Your task to perform on an android device: Search for macbook pro 15 inch on walmart.com, select the first entry, and add it to the cart. Image 0: 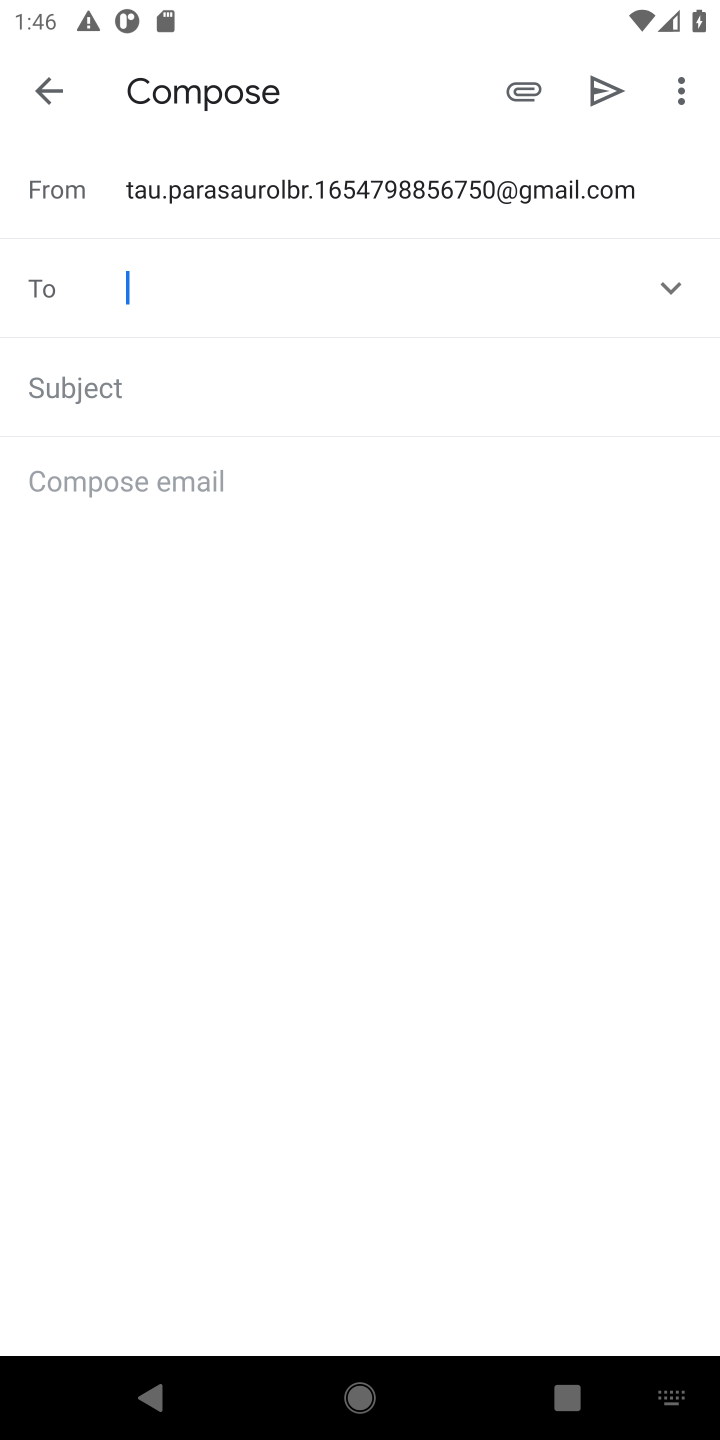
Step 0: press home button
Your task to perform on an android device: Search for macbook pro 15 inch on walmart.com, select the first entry, and add it to the cart. Image 1: 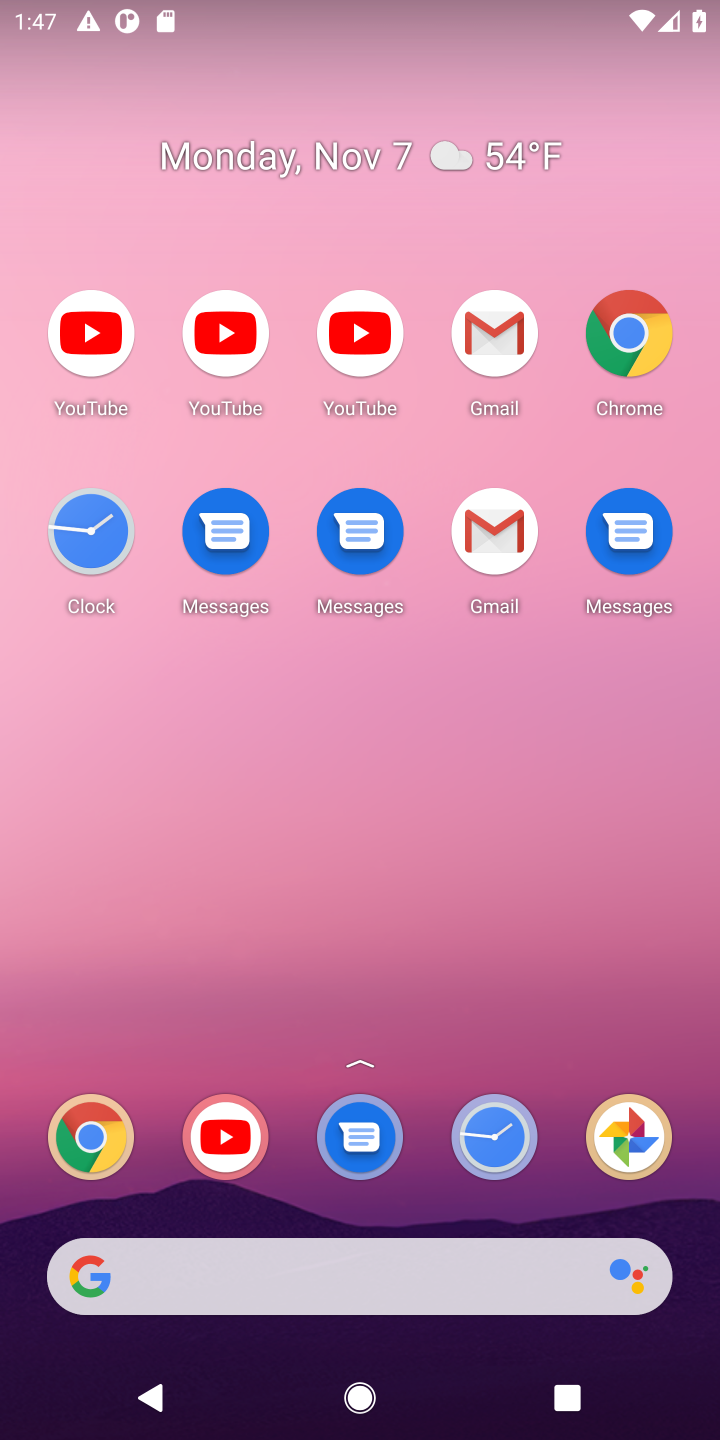
Step 1: drag from (422, 1203) to (378, 129)
Your task to perform on an android device: Search for macbook pro 15 inch on walmart.com, select the first entry, and add it to the cart. Image 2: 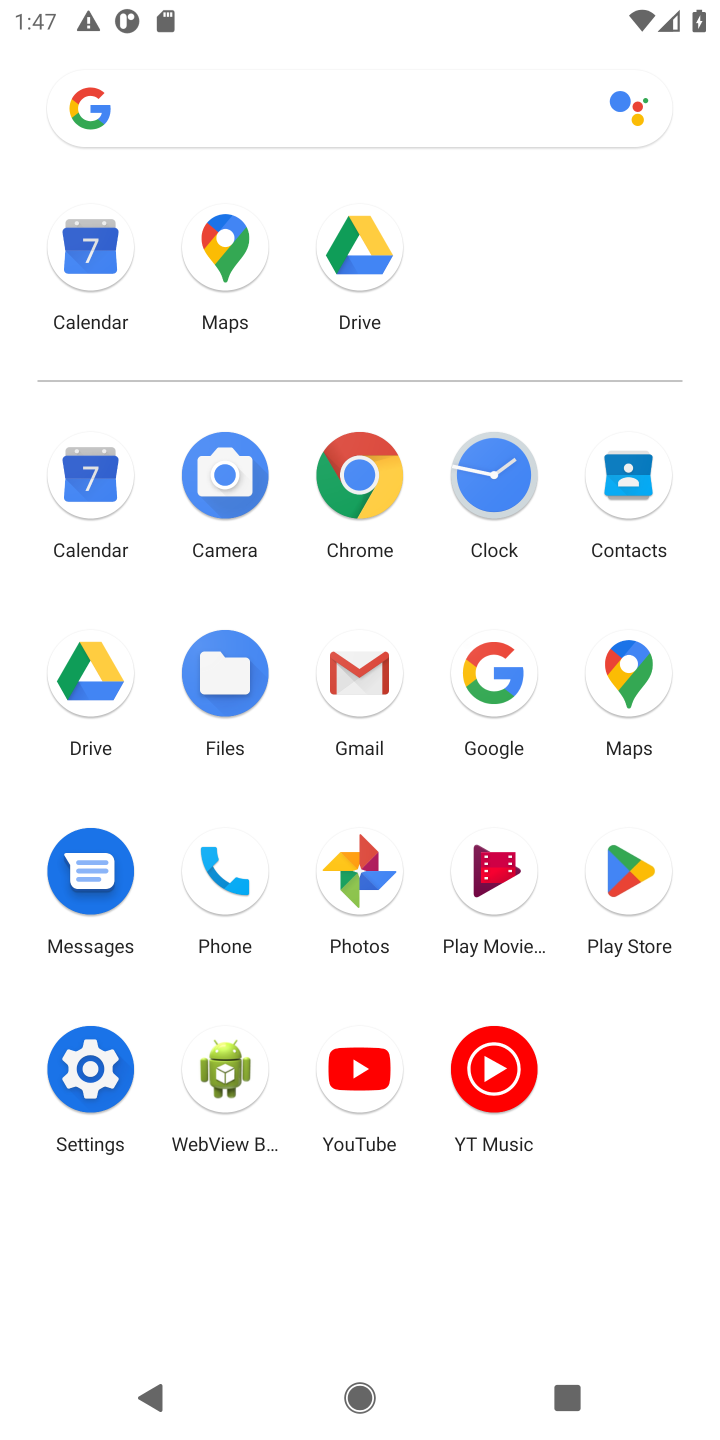
Step 2: click (358, 479)
Your task to perform on an android device: Search for macbook pro 15 inch on walmart.com, select the first entry, and add it to the cart. Image 3: 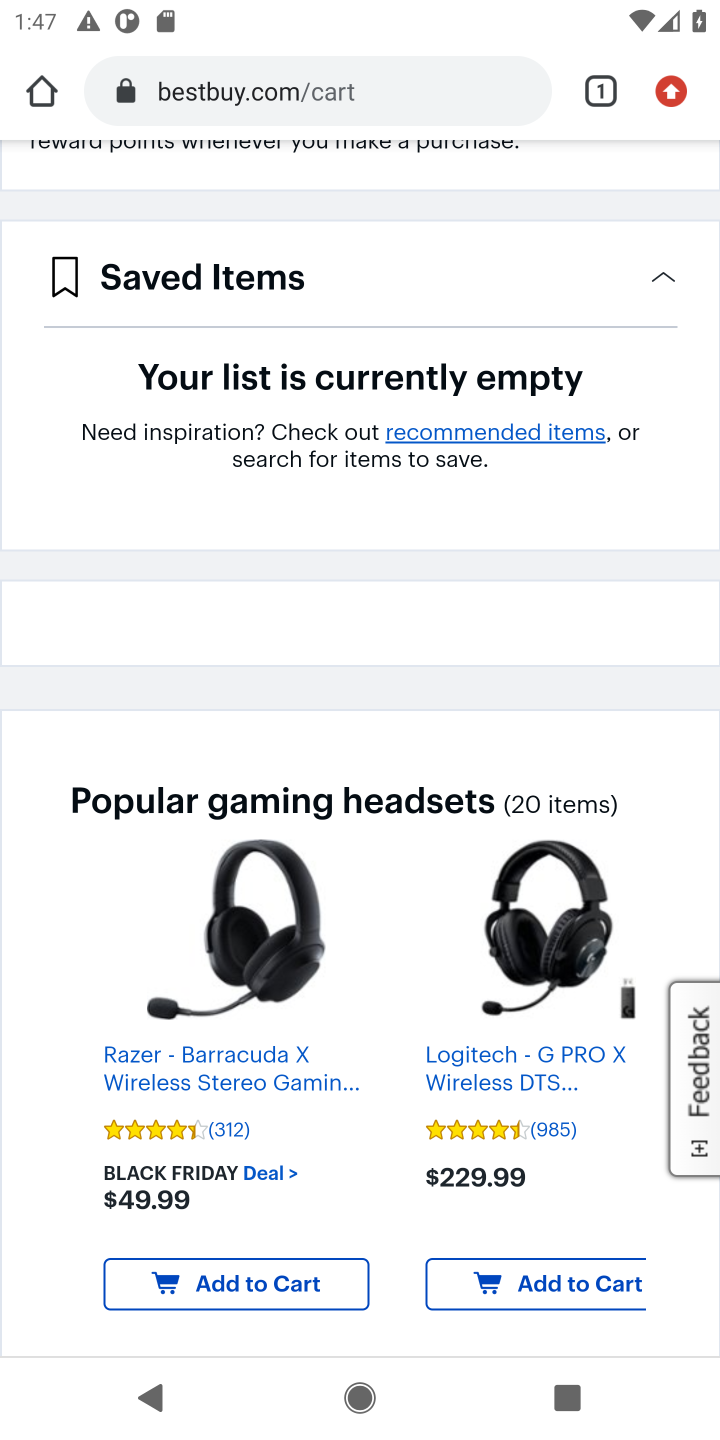
Step 3: click (359, 88)
Your task to perform on an android device: Search for macbook pro 15 inch on walmart.com, select the first entry, and add it to the cart. Image 4: 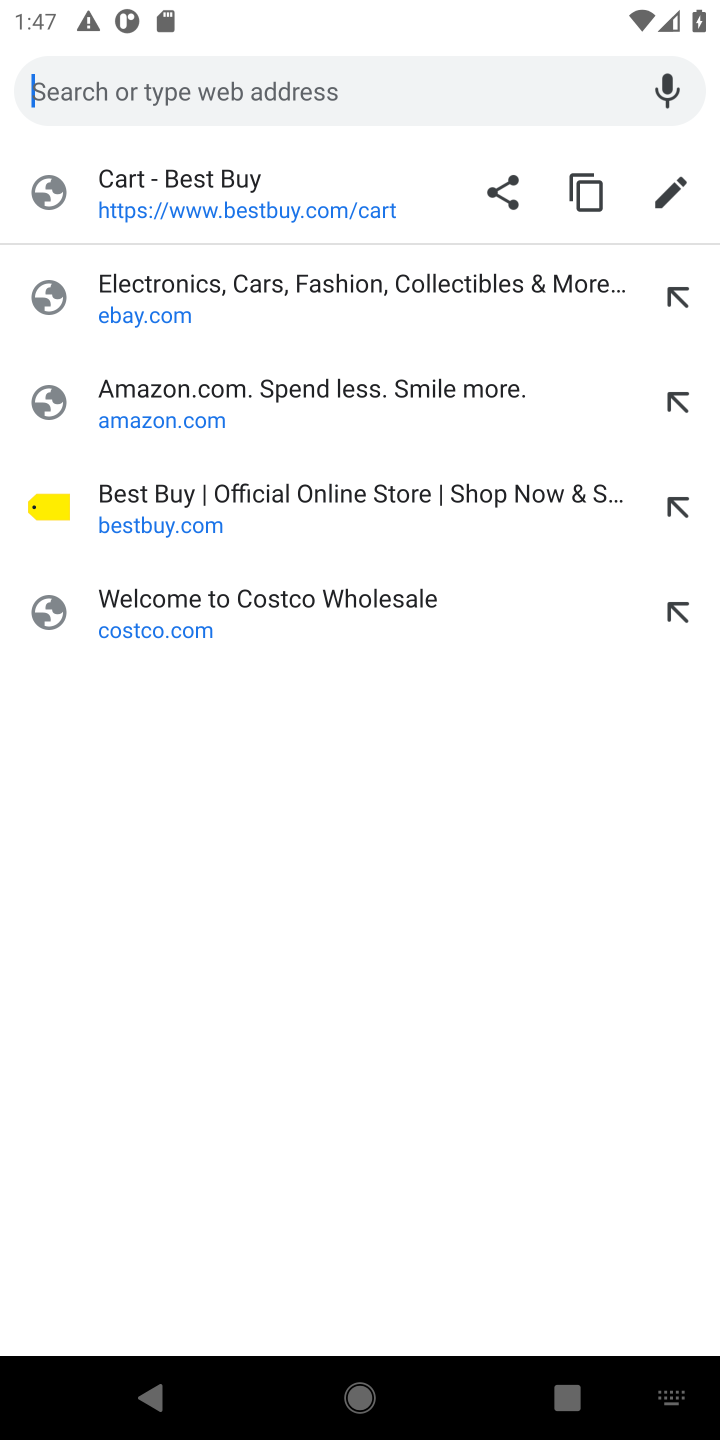
Step 4: type "walmart.com"
Your task to perform on an android device: Search for macbook pro 15 inch on walmart.com, select the first entry, and add it to the cart. Image 5: 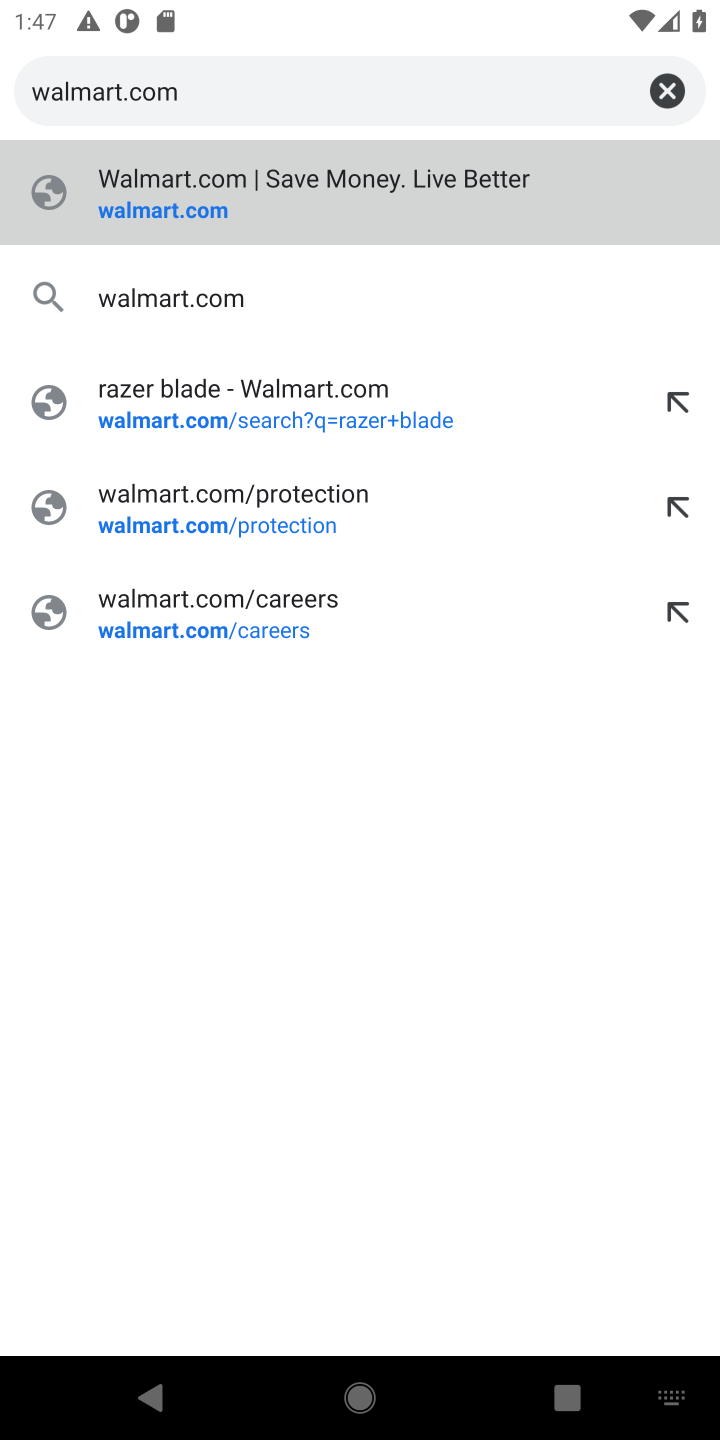
Step 5: press enter
Your task to perform on an android device: Search for macbook pro 15 inch on walmart.com, select the first entry, and add it to the cart. Image 6: 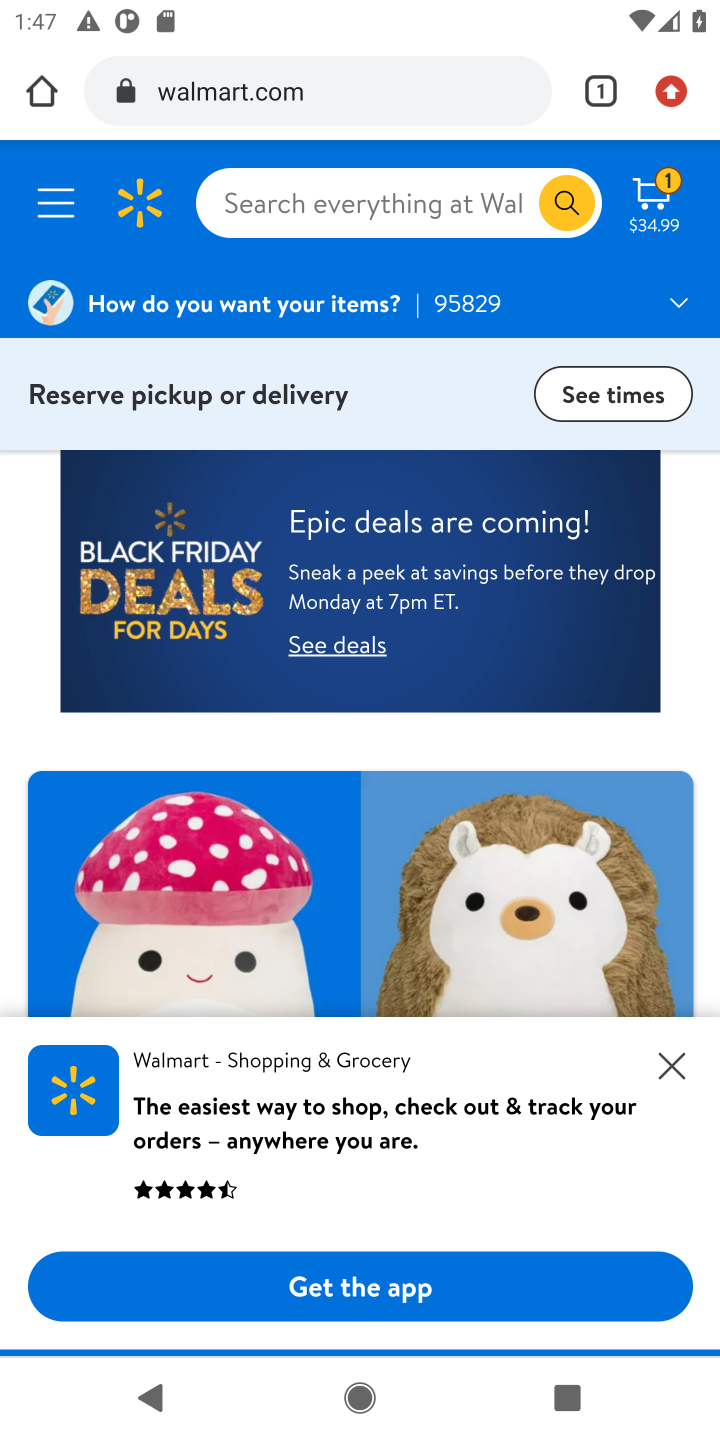
Step 6: click (301, 211)
Your task to perform on an android device: Search for macbook pro 15 inch on walmart.com, select the first entry, and add it to the cart. Image 7: 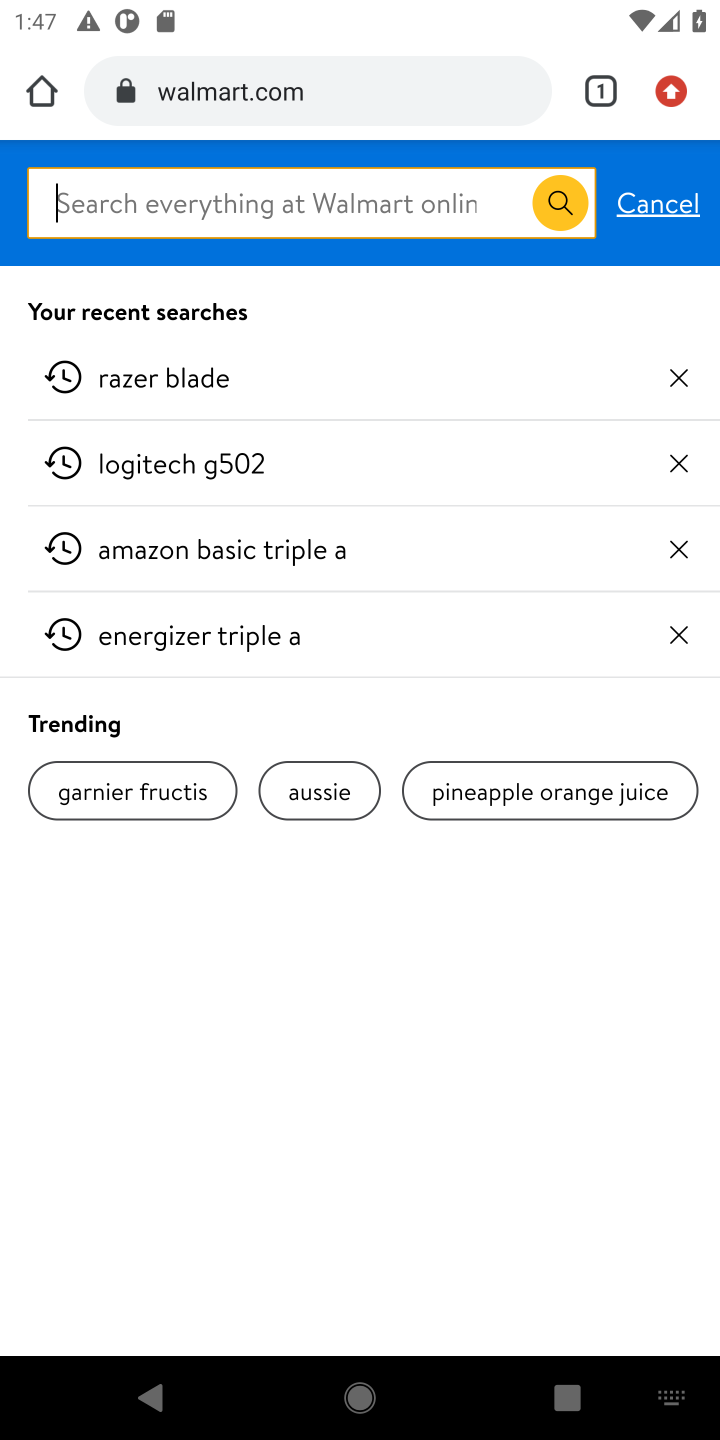
Step 7: type "macbook pro 15 inch"
Your task to perform on an android device: Search for macbook pro 15 inch on walmart.com, select the first entry, and add it to the cart. Image 8: 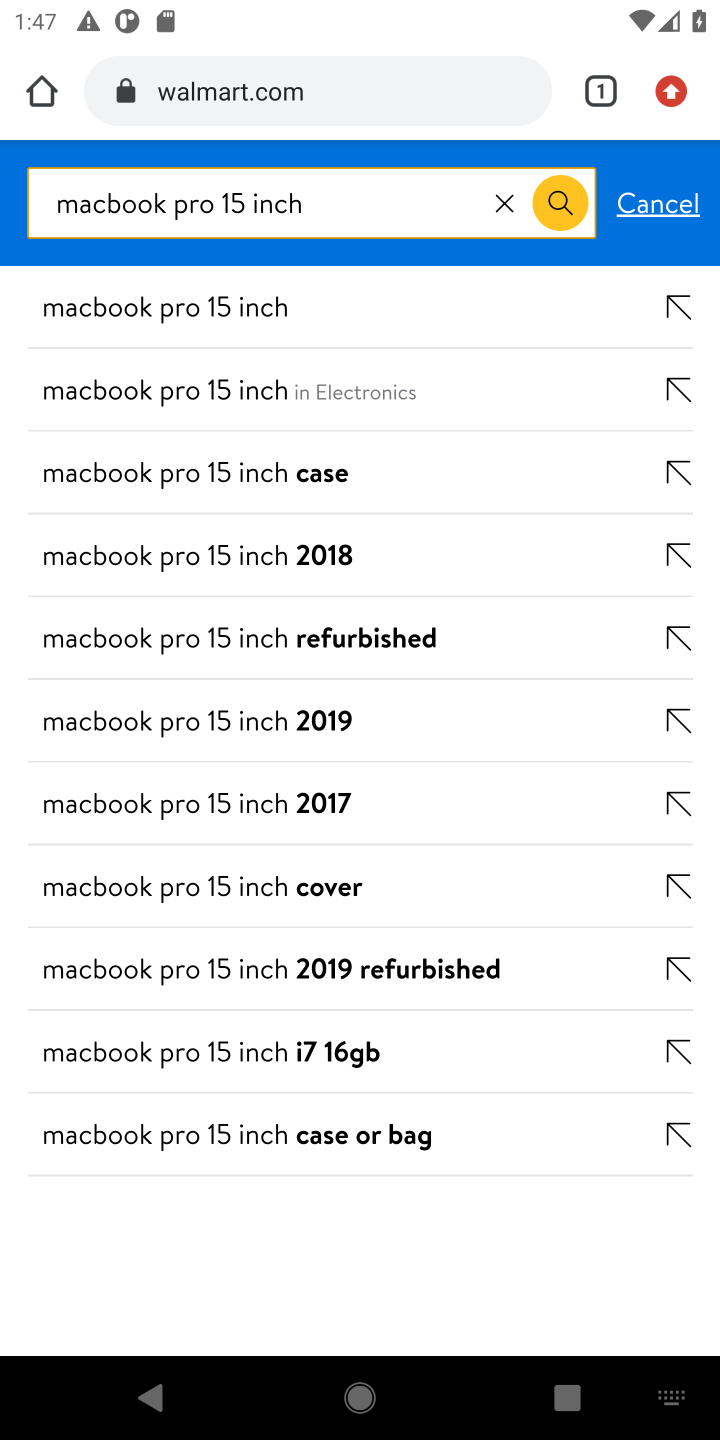
Step 8: press enter
Your task to perform on an android device: Search for macbook pro 15 inch on walmart.com, select the first entry, and add it to the cart. Image 9: 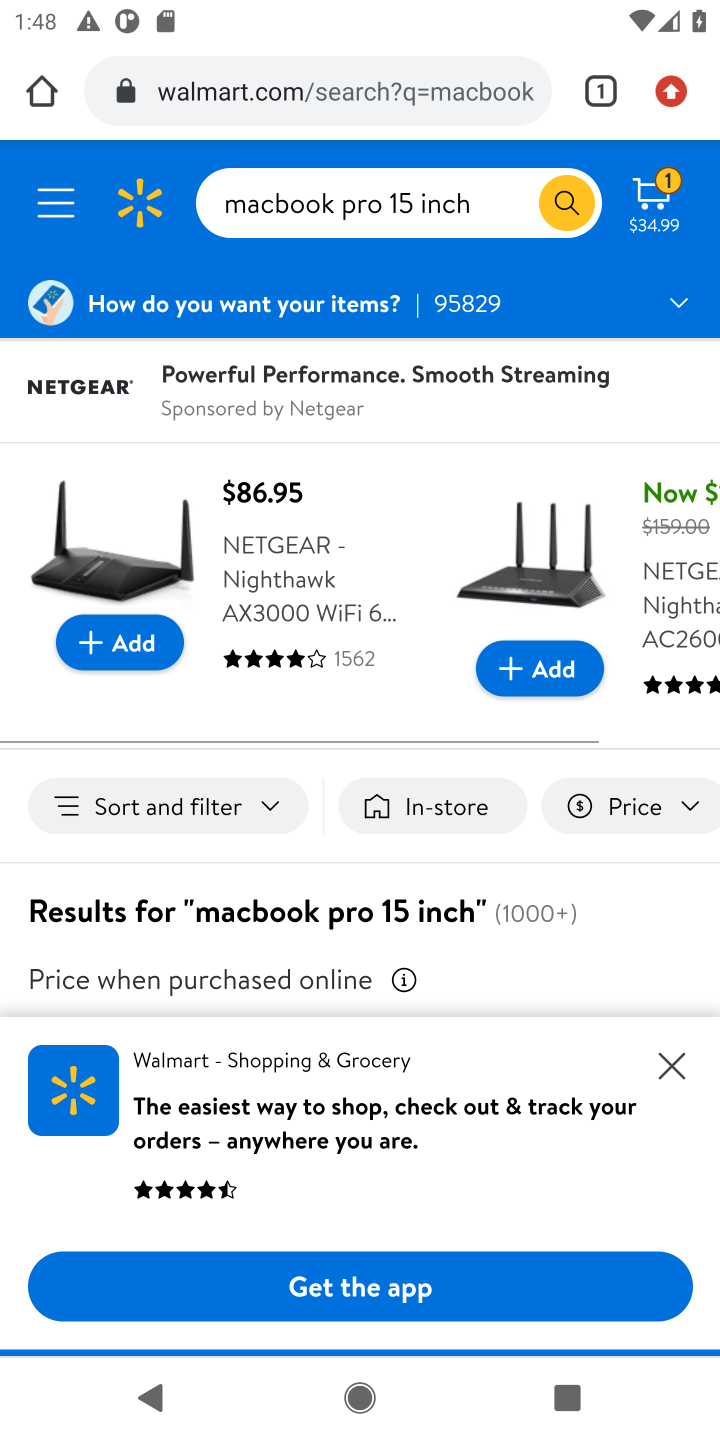
Step 9: drag from (432, 936) to (433, 251)
Your task to perform on an android device: Search for macbook pro 15 inch on walmart.com, select the first entry, and add it to the cart. Image 10: 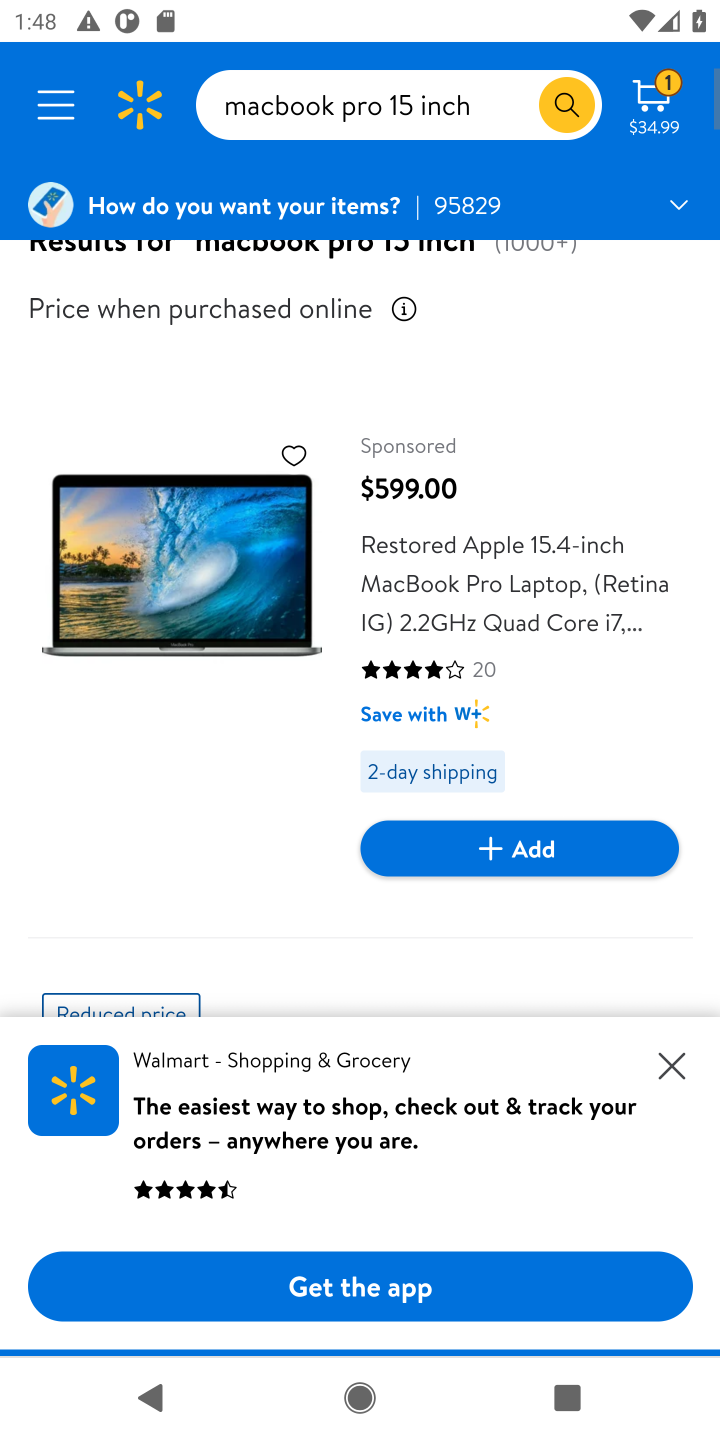
Step 10: drag from (227, 885) to (298, 261)
Your task to perform on an android device: Search for macbook pro 15 inch on walmart.com, select the first entry, and add it to the cart. Image 11: 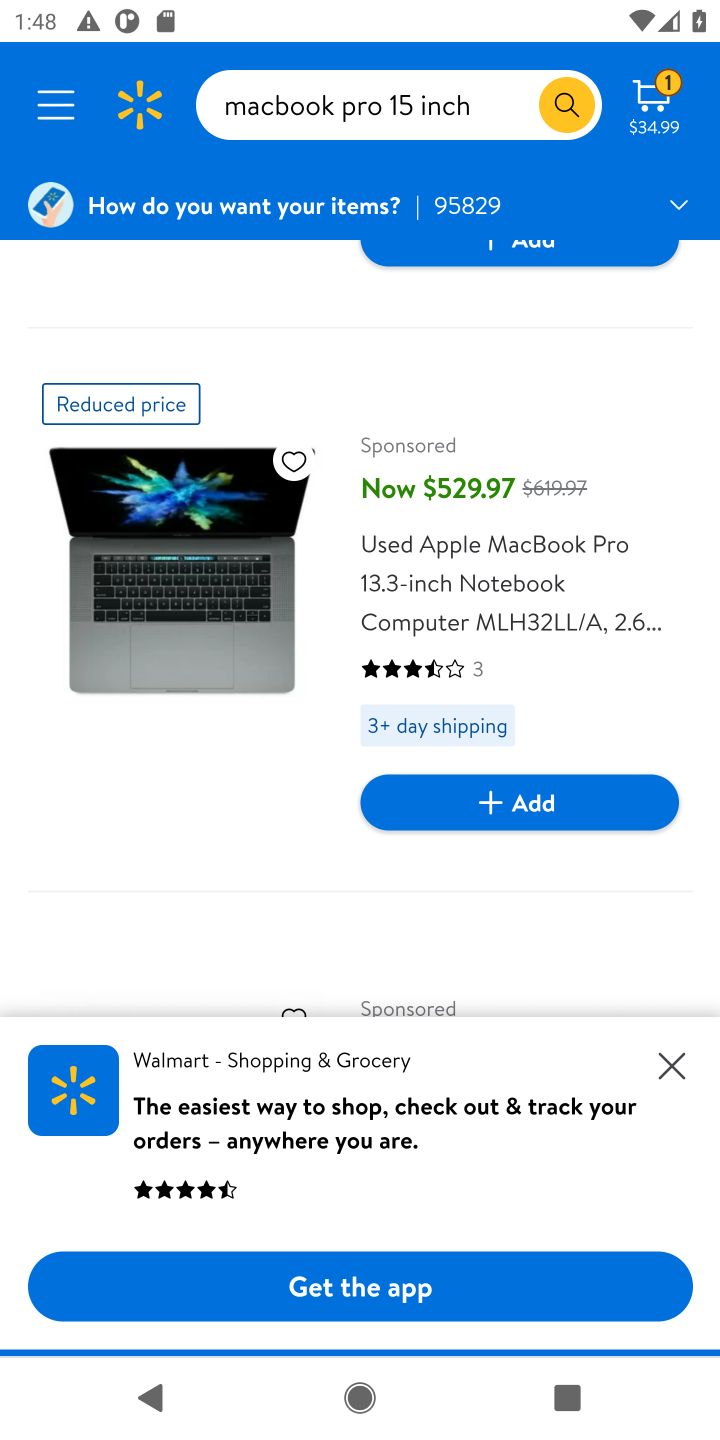
Step 11: drag from (415, 972) to (401, 213)
Your task to perform on an android device: Search for macbook pro 15 inch on walmart.com, select the first entry, and add it to the cart. Image 12: 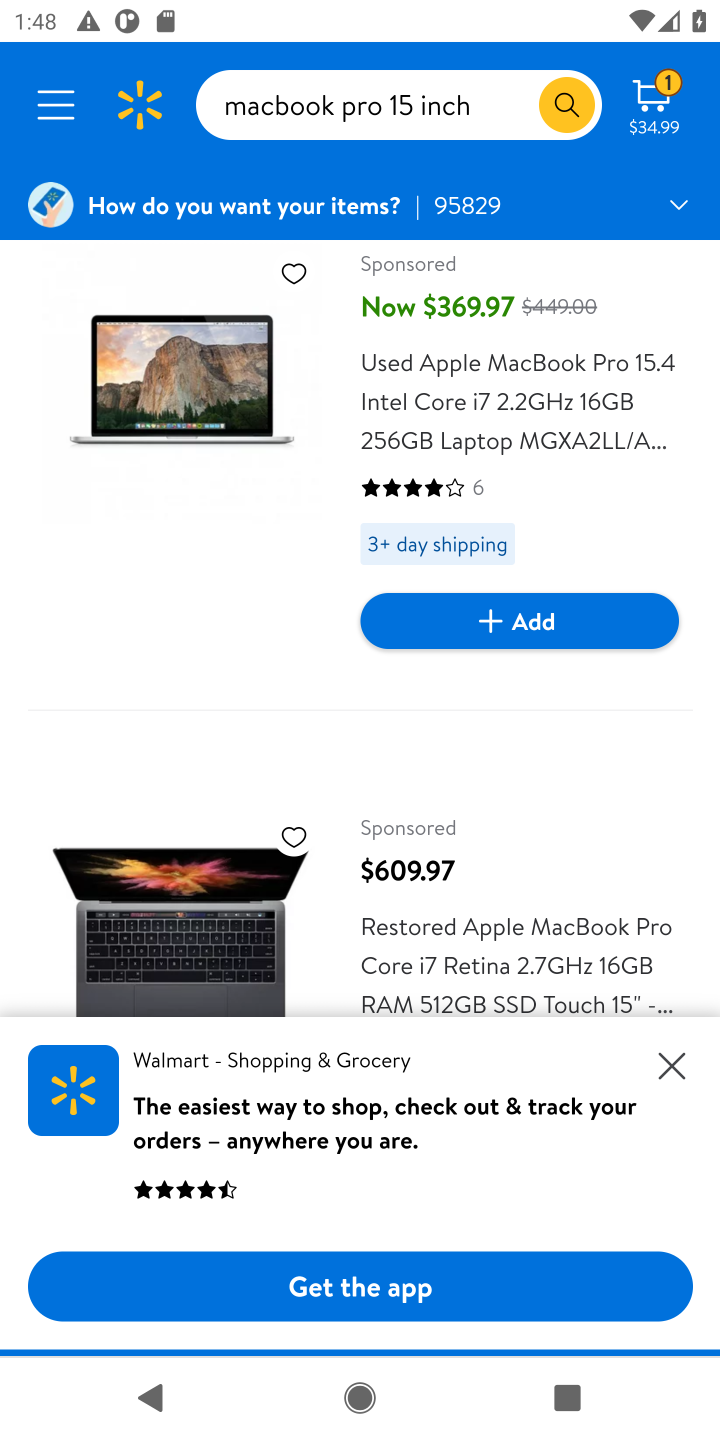
Step 12: drag from (575, 876) to (623, 139)
Your task to perform on an android device: Search for macbook pro 15 inch on walmart.com, select the first entry, and add it to the cart. Image 13: 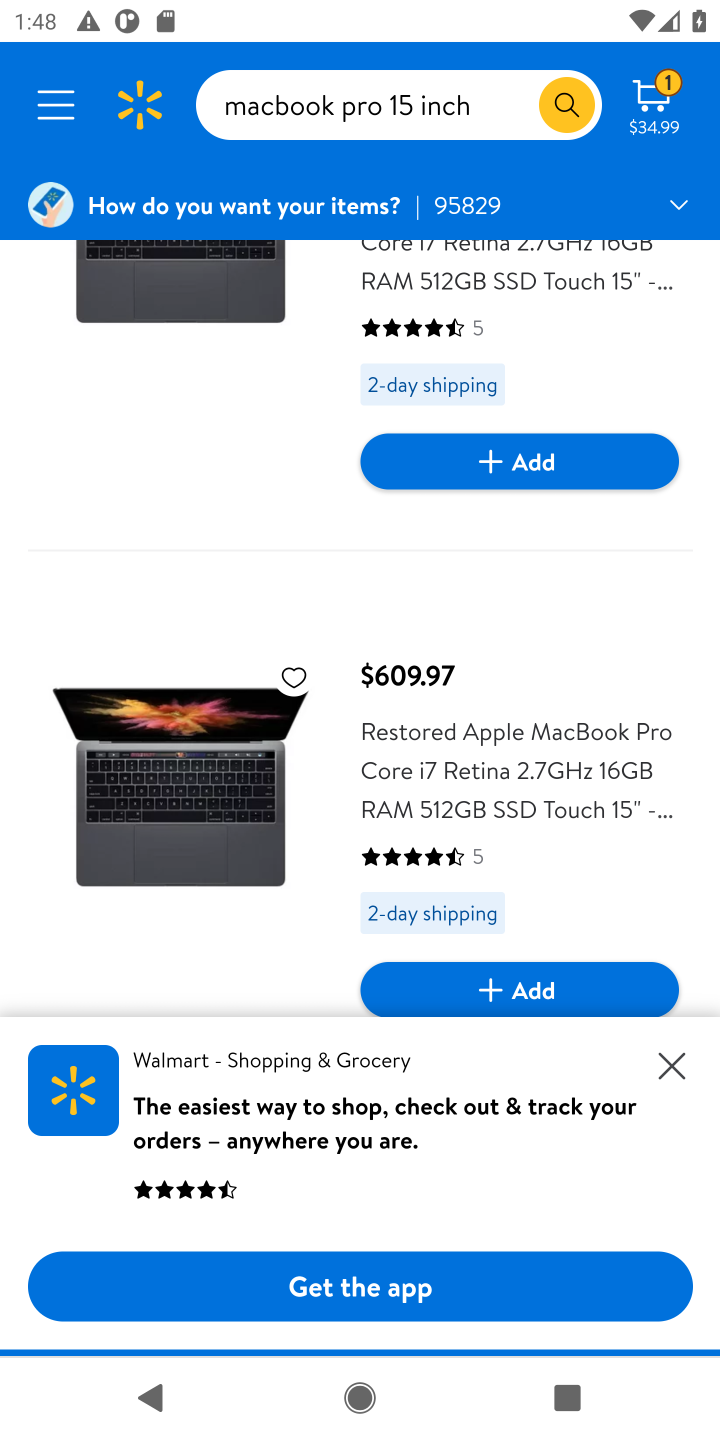
Step 13: drag from (524, 597) to (519, 407)
Your task to perform on an android device: Search for macbook pro 15 inch on walmart.com, select the first entry, and add it to the cart. Image 14: 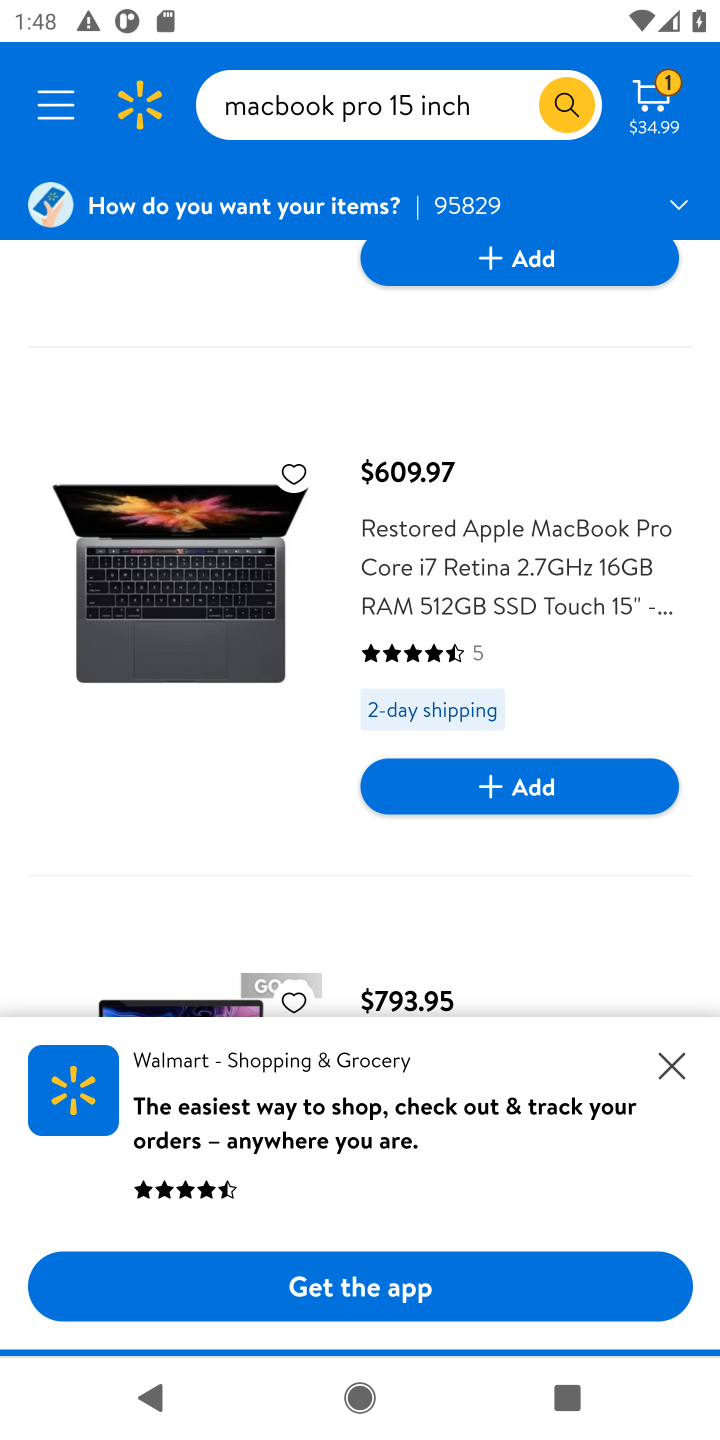
Step 14: click (507, 588)
Your task to perform on an android device: Search for macbook pro 15 inch on walmart.com, select the first entry, and add it to the cart. Image 15: 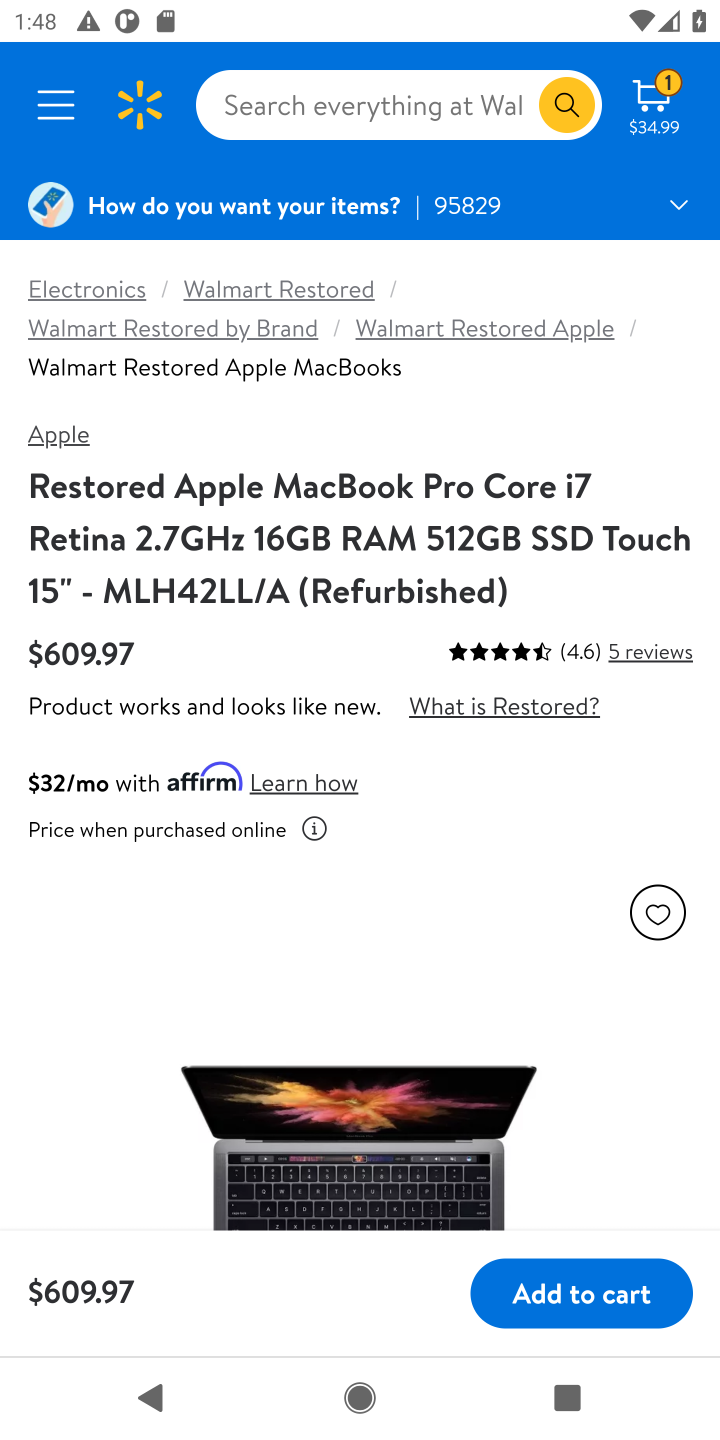
Step 15: click (588, 1292)
Your task to perform on an android device: Search for macbook pro 15 inch on walmart.com, select the first entry, and add it to the cart. Image 16: 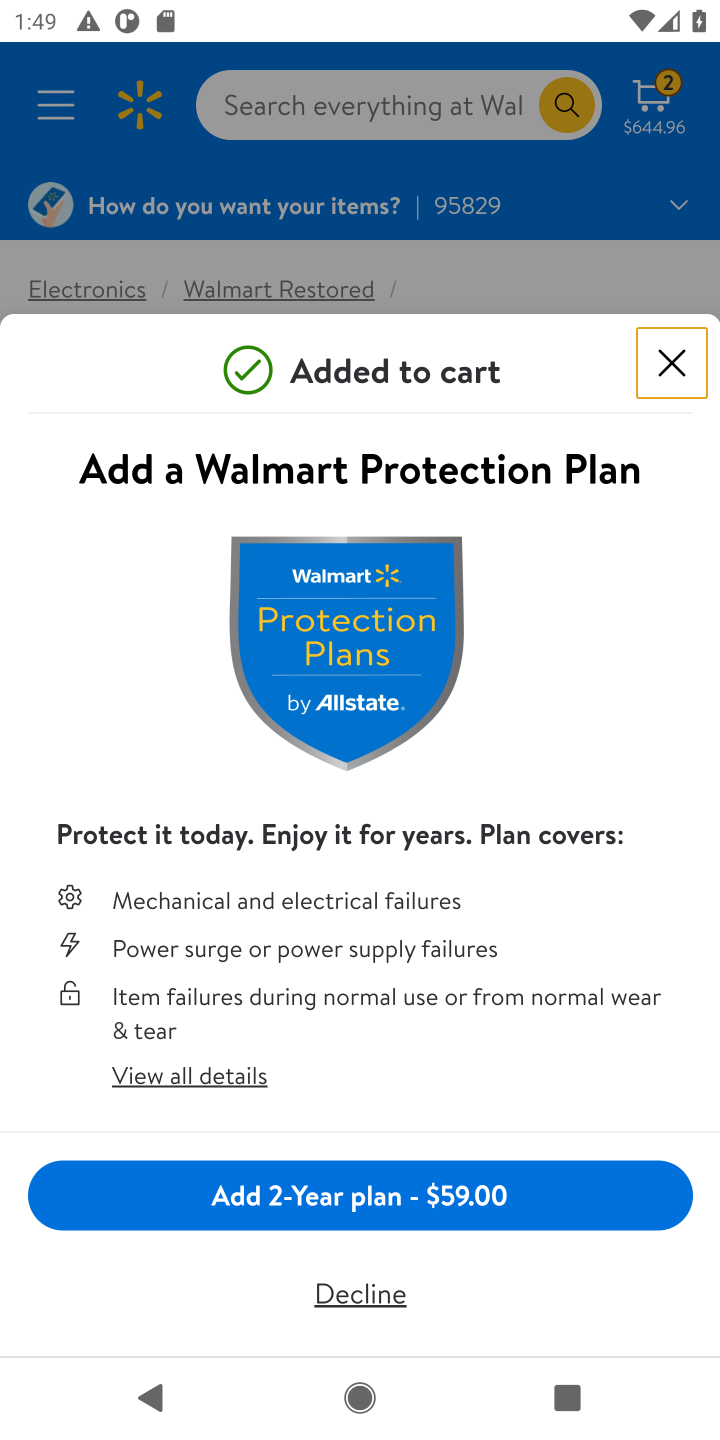
Step 16: task complete